Your task to perform on an android device: Go to display settings Image 0: 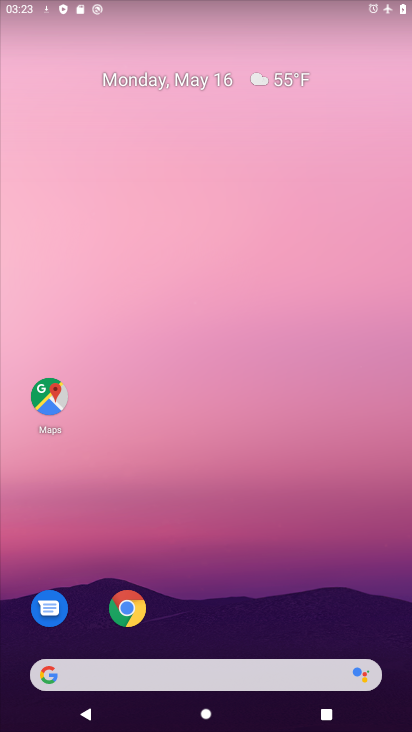
Step 0: drag from (225, 521) to (254, 261)
Your task to perform on an android device: Go to display settings Image 1: 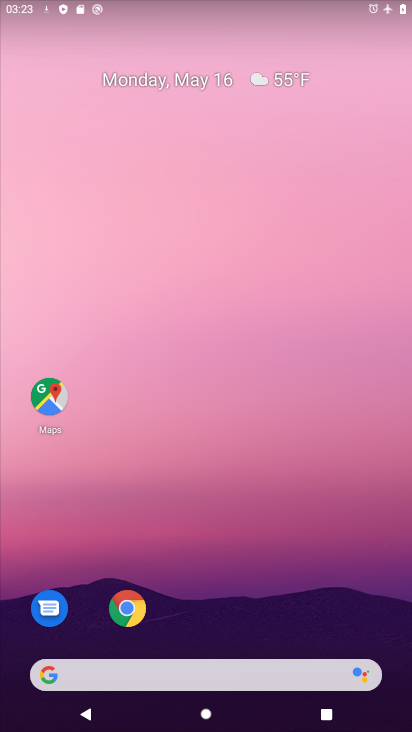
Step 1: drag from (214, 639) to (260, 121)
Your task to perform on an android device: Go to display settings Image 2: 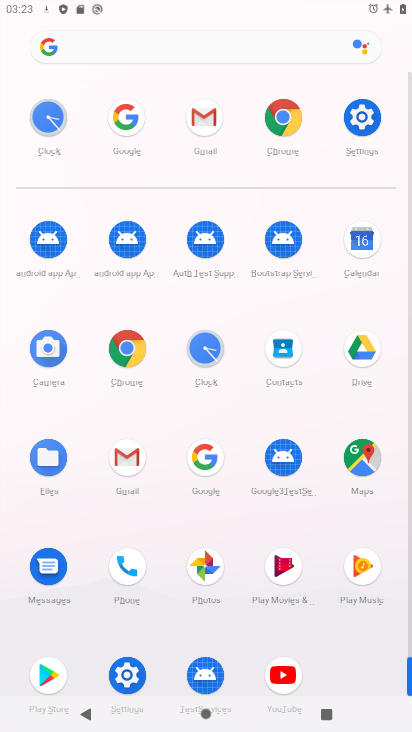
Step 2: click (363, 125)
Your task to perform on an android device: Go to display settings Image 3: 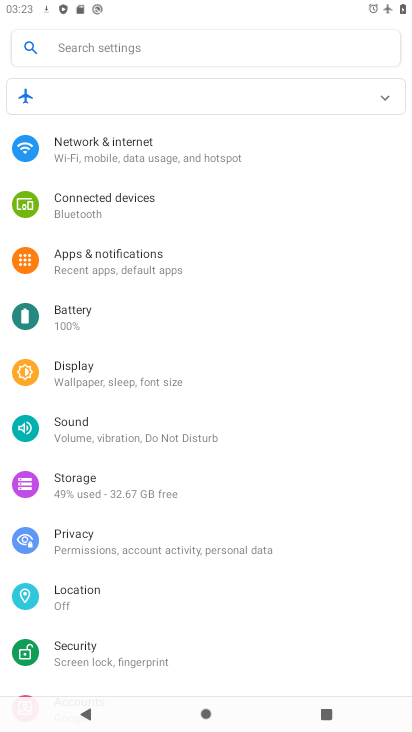
Step 3: click (107, 373)
Your task to perform on an android device: Go to display settings Image 4: 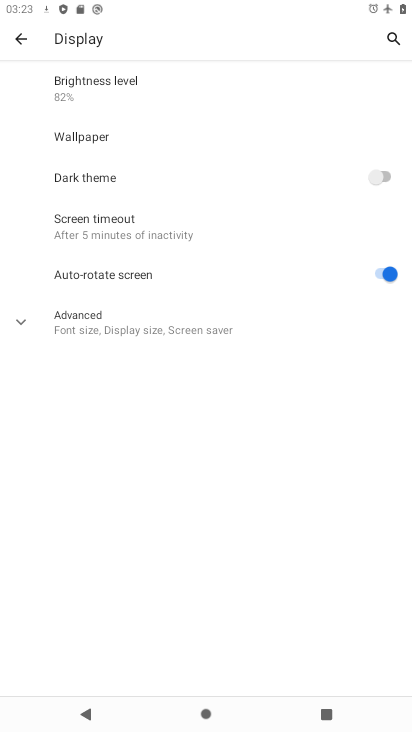
Step 4: task complete